Your task to perform on an android device: Go to Yahoo.com Image 0: 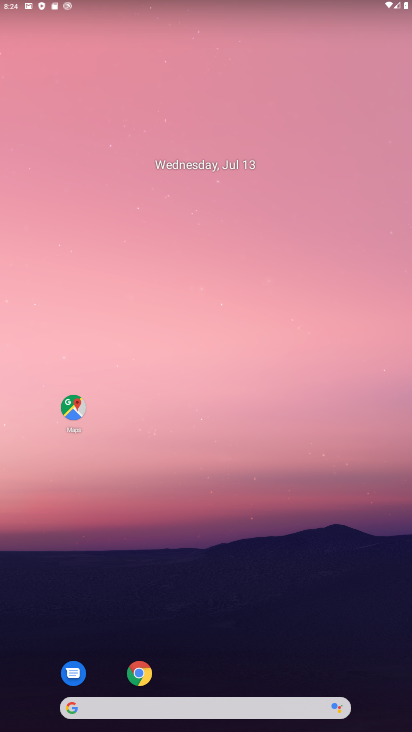
Step 0: drag from (185, 699) to (185, 419)
Your task to perform on an android device: Go to Yahoo.com Image 1: 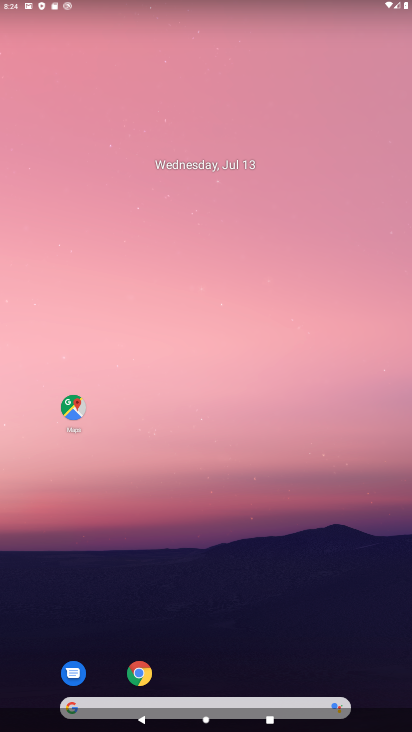
Step 1: drag from (224, 686) to (225, 280)
Your task to perform on an android device: Go to Yahoo.com Image 2: 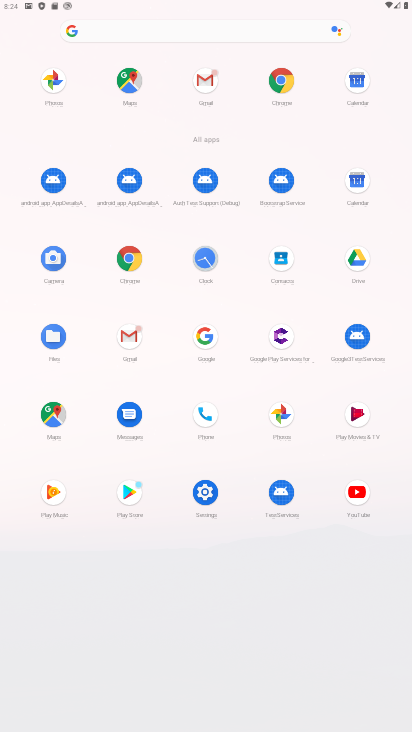
Step 2: click (280, 78)
Your task to perform on an android device: Go to Yahoo.com Image 3: 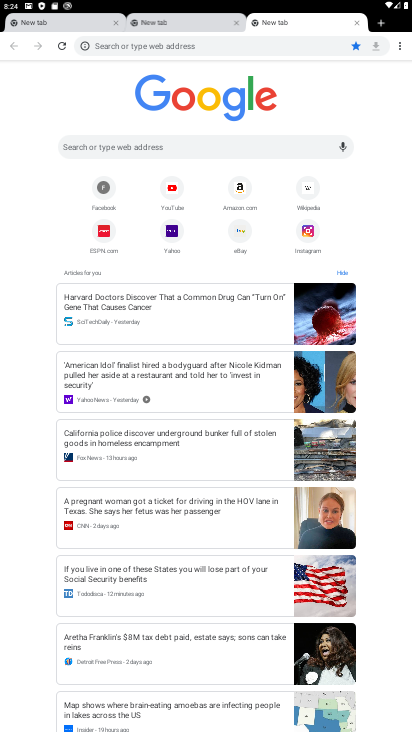
Step 3: click (177, 243)
Your task to perform on an android device: Go to Yahoo.com Image 4: 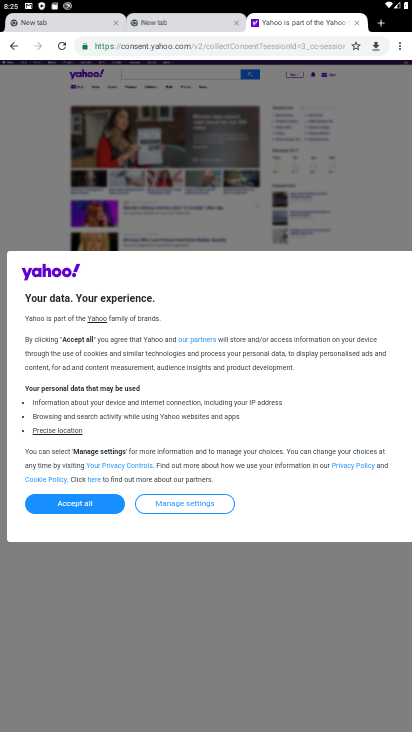
Step 4: task complete